Your task to perform on an android device: toggle sleep mode Image 0: 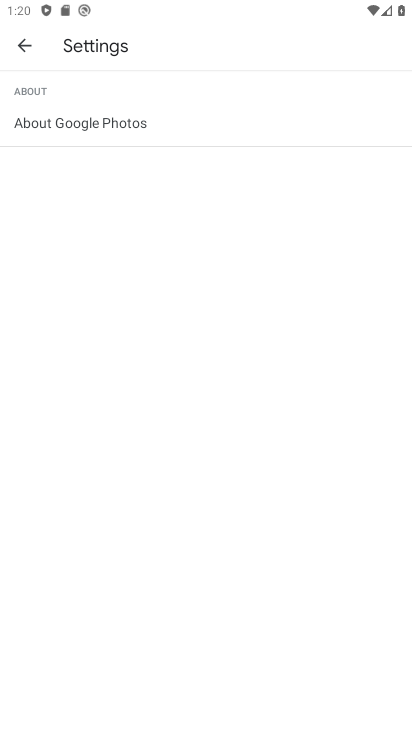
Step 0: press back button
Your task to perform on an android device: toggle sleep mode Image 1: 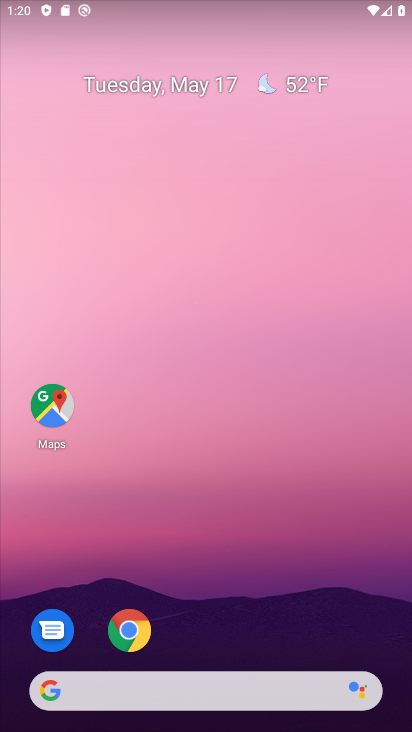
Step 1: drag from (199, 625) to (277, 141)
Your task to perform on an android device: toggle sleep mode Image 2: 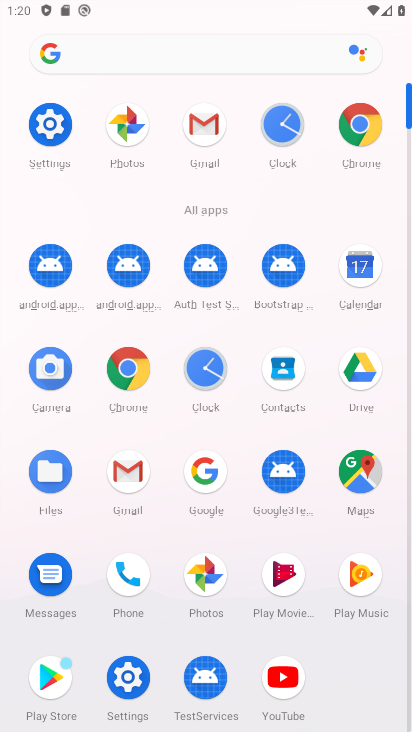
Step 2: click (55, 122)
Your task to perform on an android device: toggle sleep mode Image 3: 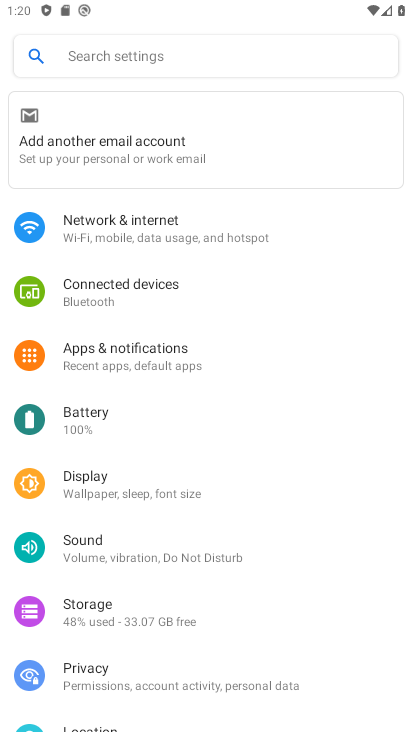
Step 3: click (129, 59)
Your task to perform on an android device: toggle sleep mode Image 4: 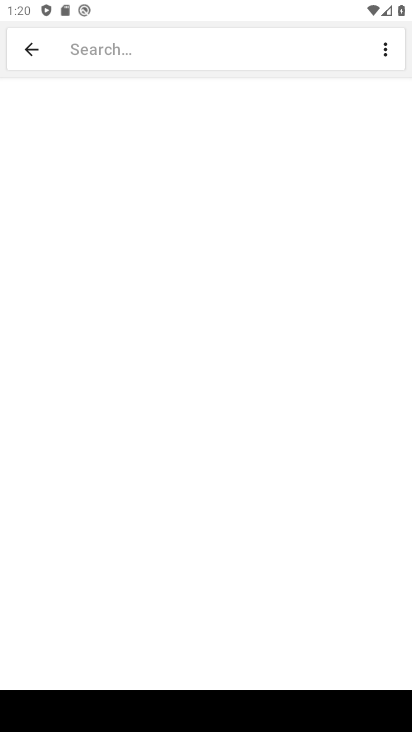
Step 4: type "sleep moide"
Your task to perform on an android device: toggle sleep mode Image 5: 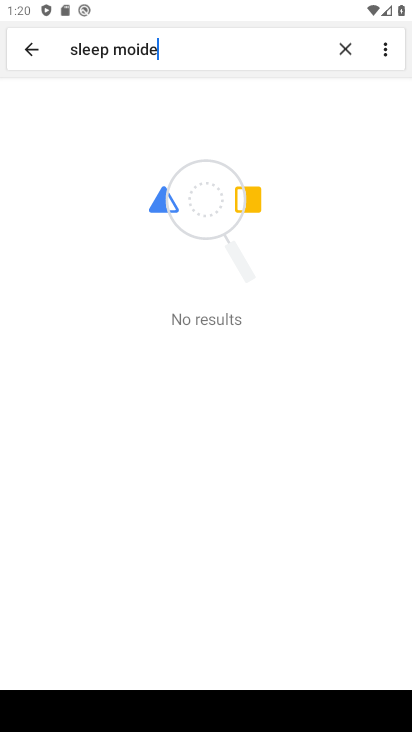
Step 5: task complete